Your task to perform on an android device: Open privacy settings Image 0: 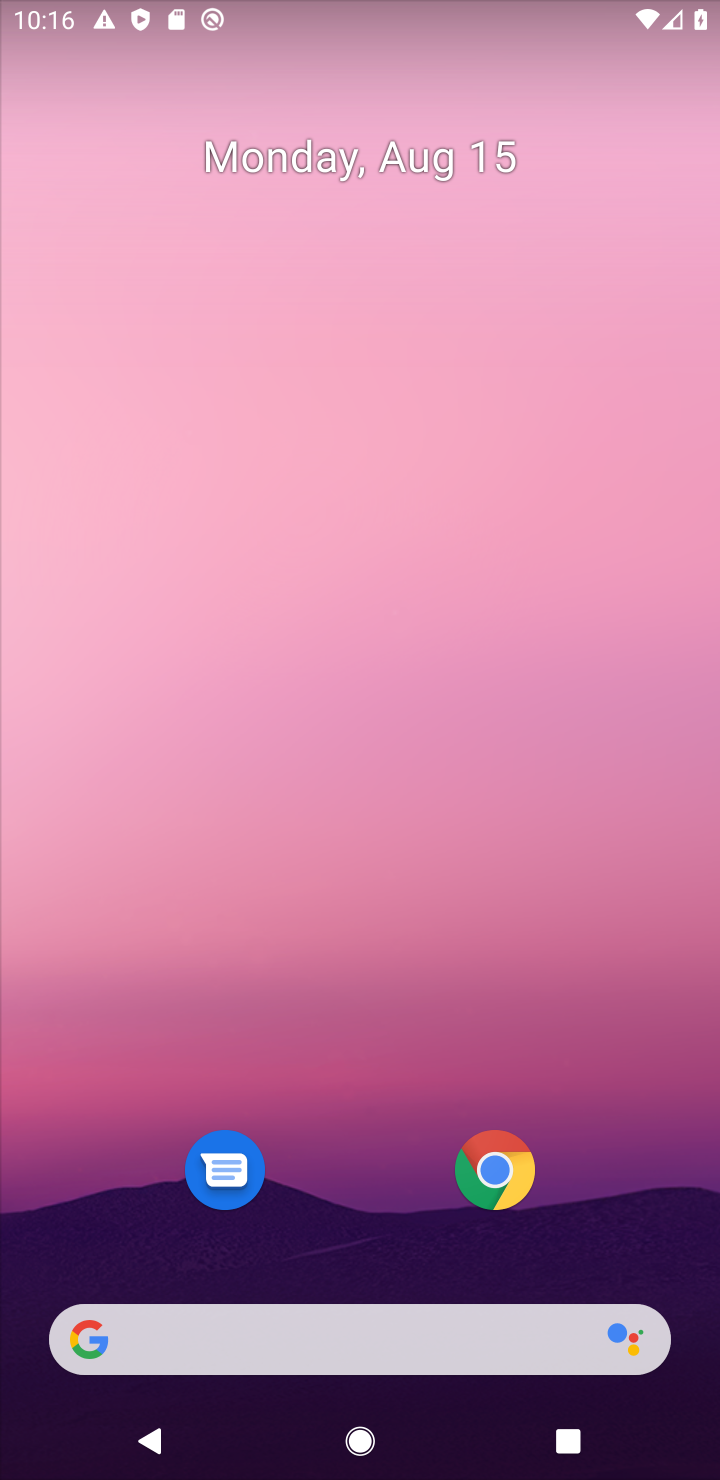
Step 0: press home button
Your task to perform on an android device: Open privacy settings Image 1: 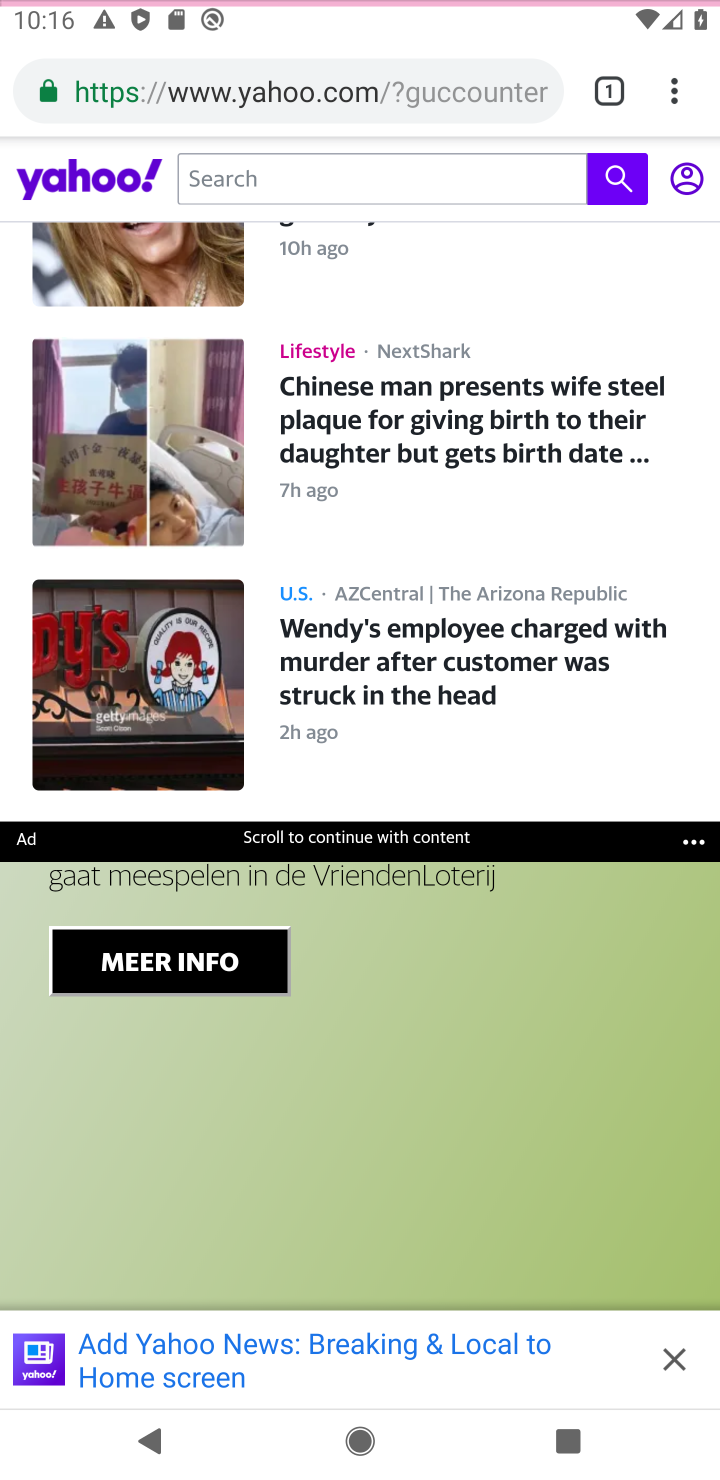
Step 1: drag from (372, 664) to (372, 107)
Your task to perform on an android device: Open privacy settings Image 2: 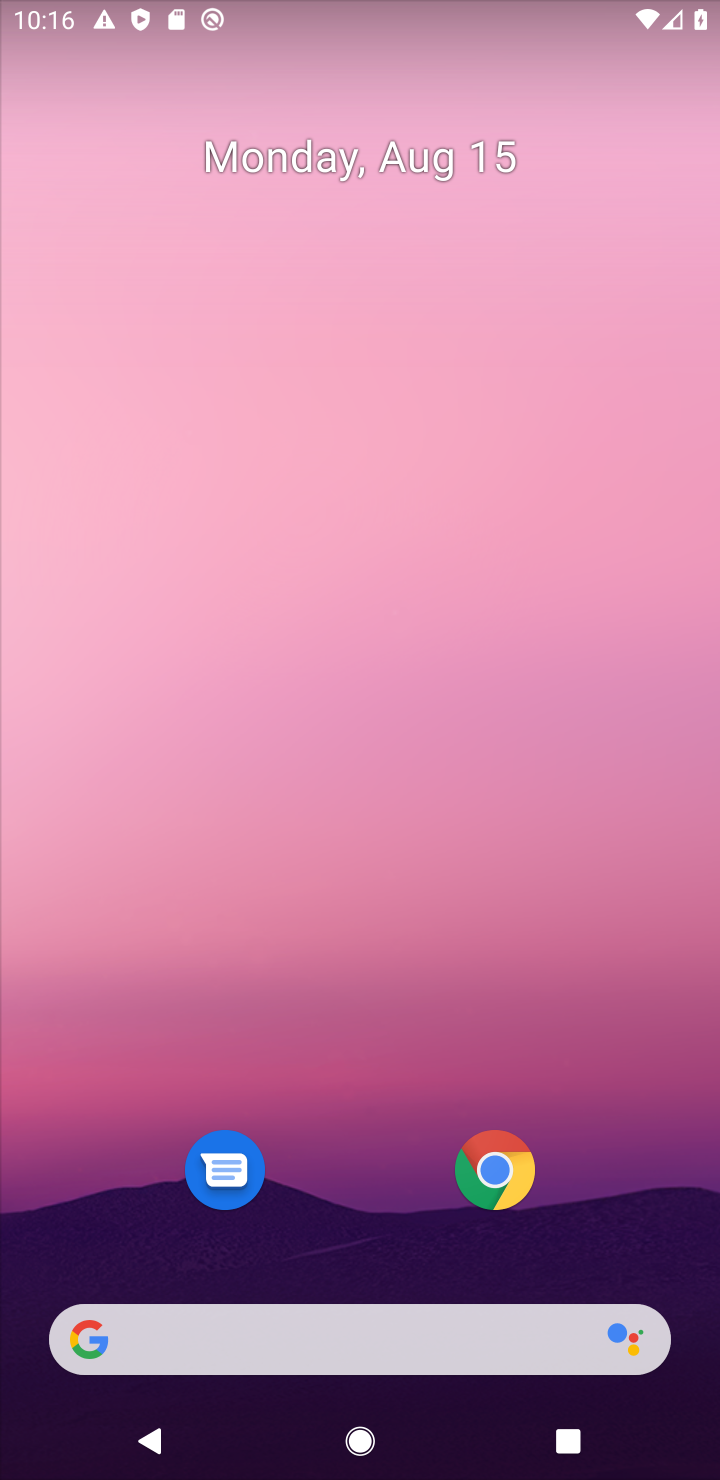
Step 2: drag from (396, 1248) to (390, 137)
Your task to perform on an android device: Open privacy settings Image 3: 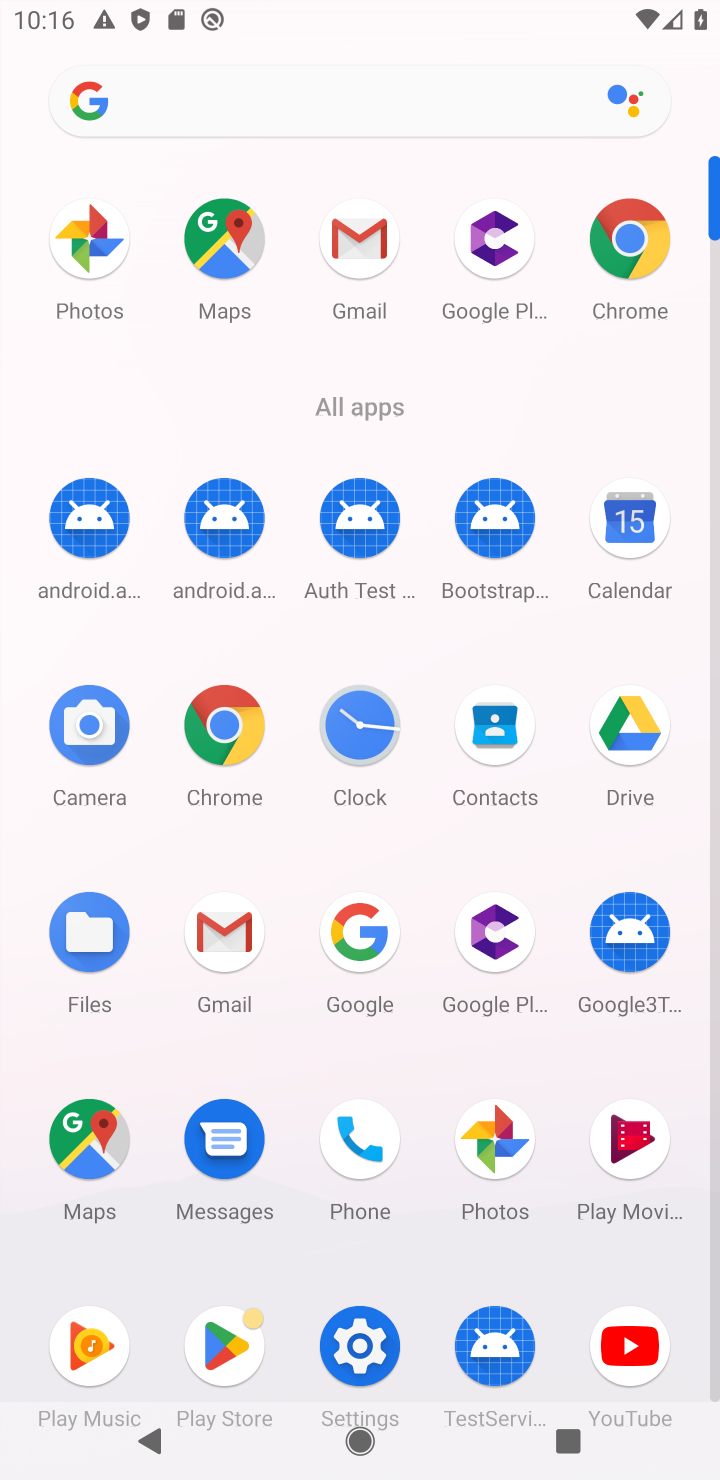
Step 3: click (355, 1328)
Your task to perform on an android device: Open privacy settings Image 4: 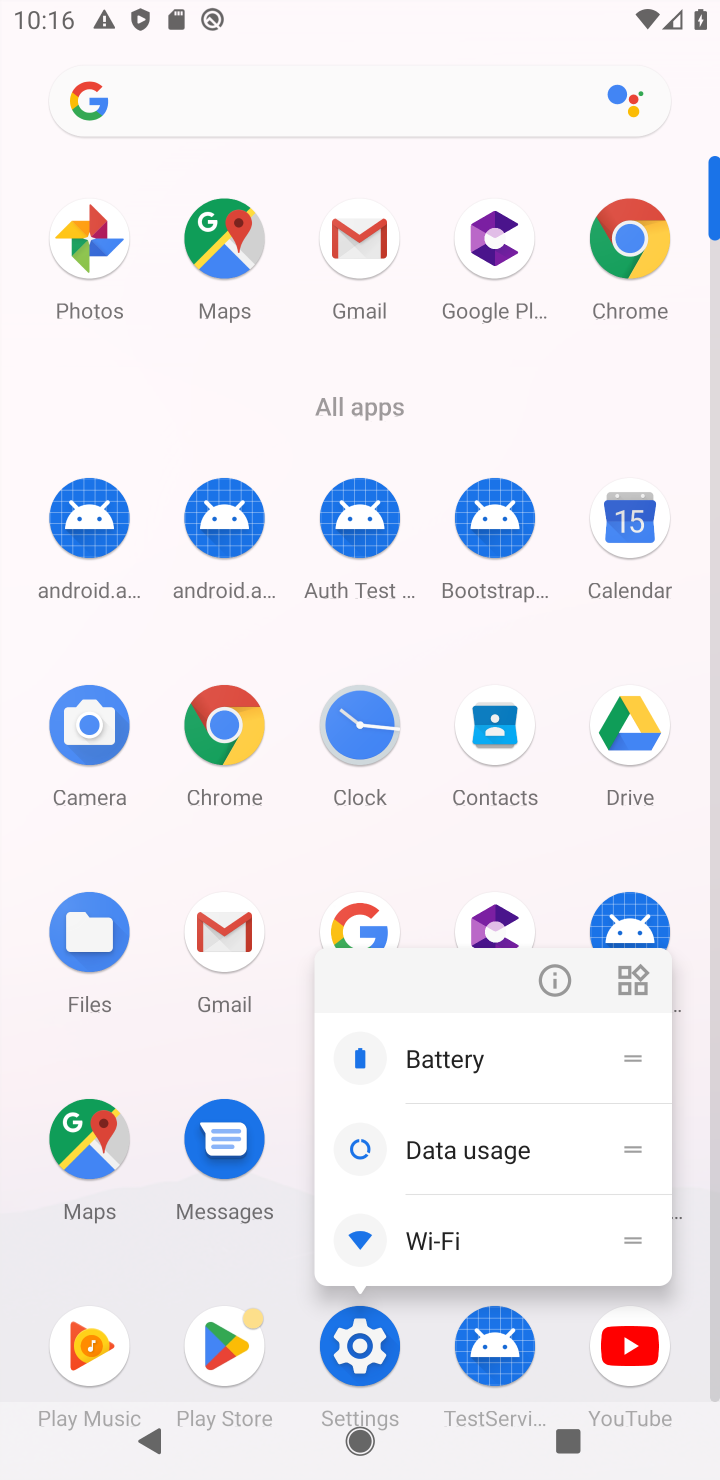
Step 4: click (355, 1335)
Your task to perform on an android device: Open privacy settings Image 5: 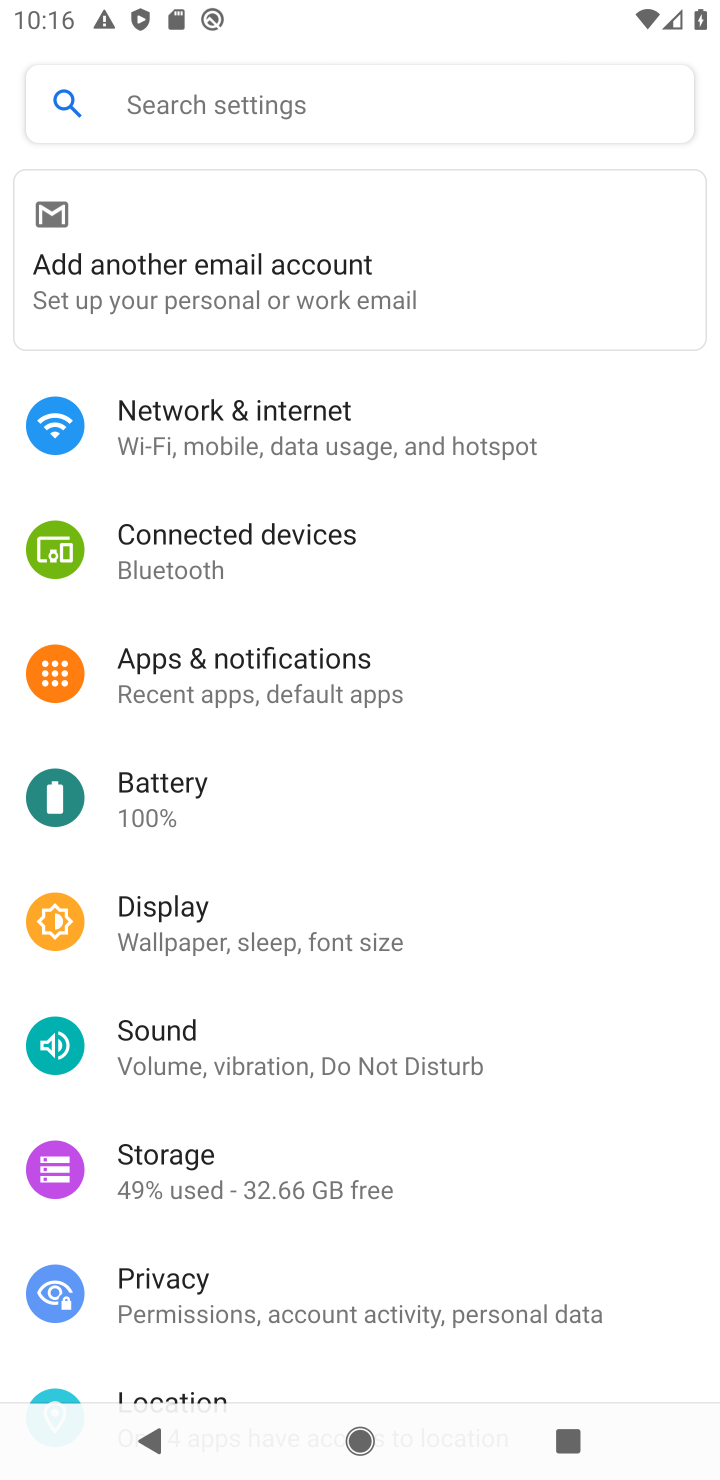
Step 5: click (224, 1280)
Your task to perform on an android device: Open privacy settings Image 6: 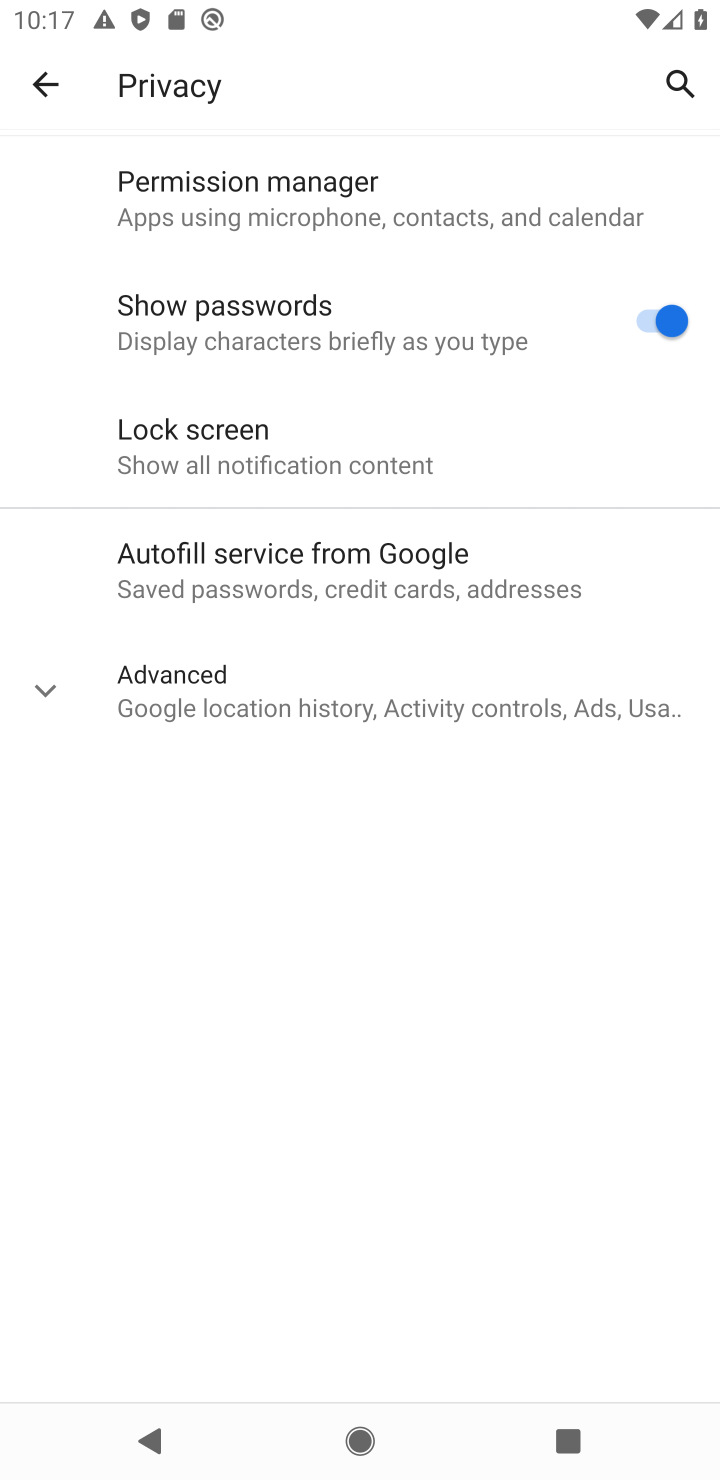
Step 6: click (58, 694)
Your task to perform on an android device: Open privacy settings Image 7: 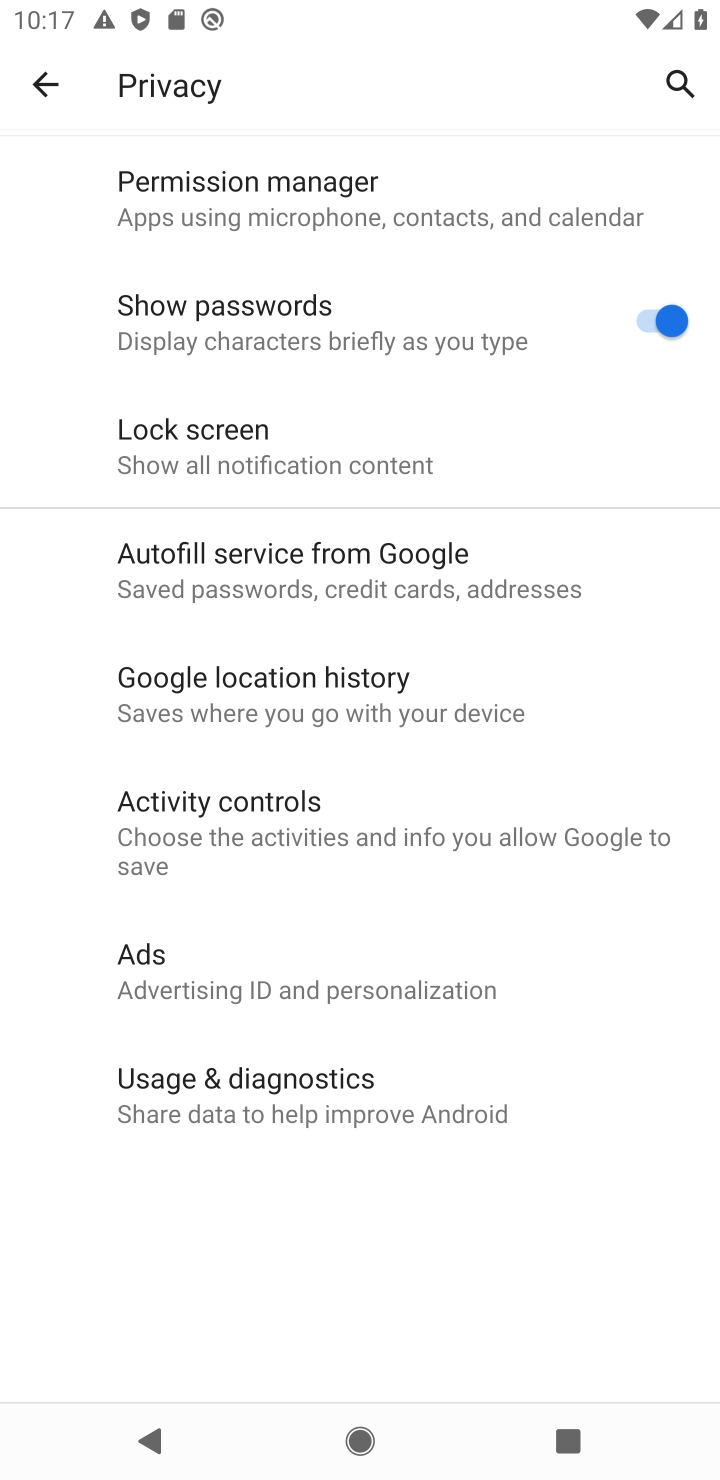
Step 7: task complete